Your task to perform on an android device: change the upload size in google photos Image 0: 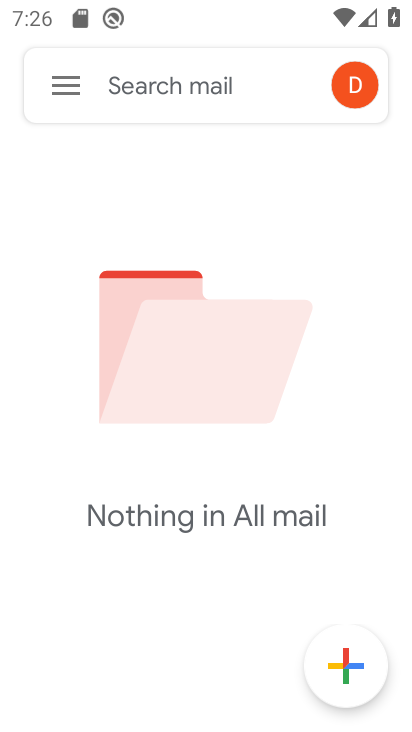
Step 0: press home button
Your task to perform on an android device: change the upload size in google photos Image 1: 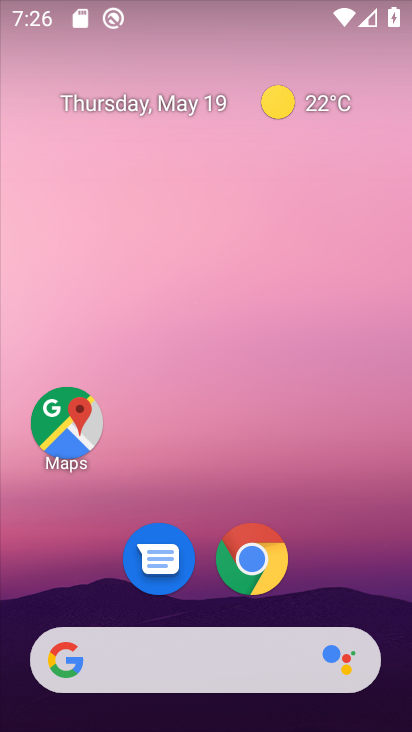
Step 1: drag from (190, 538) to (179, 6)
Your task to perform on an android device: change the upload size in google photos Image 2: 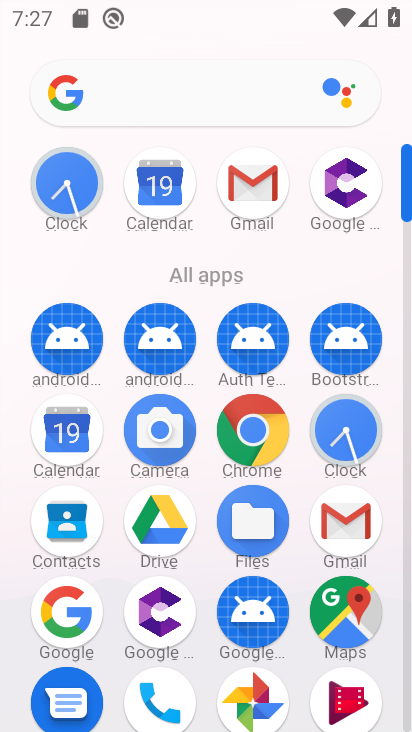
Step 2: drag from (200, 571) to (286, 70)
Your task to perform on an android device: change the upload size in google photos Image 3: 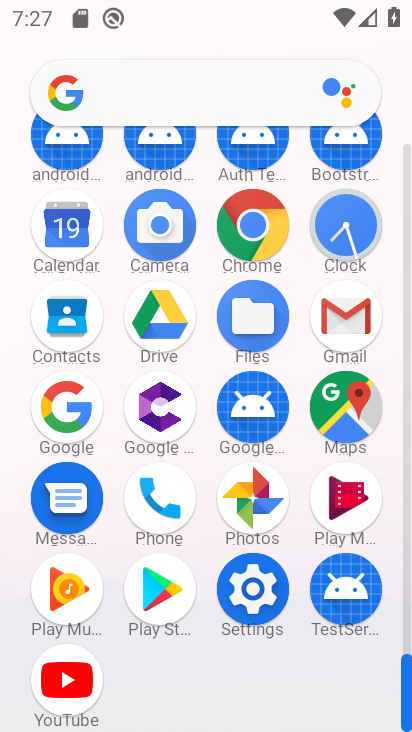
Step 3: click (258, 489)
Your task to perform on an android device: change the upload size in google photos Image 4: 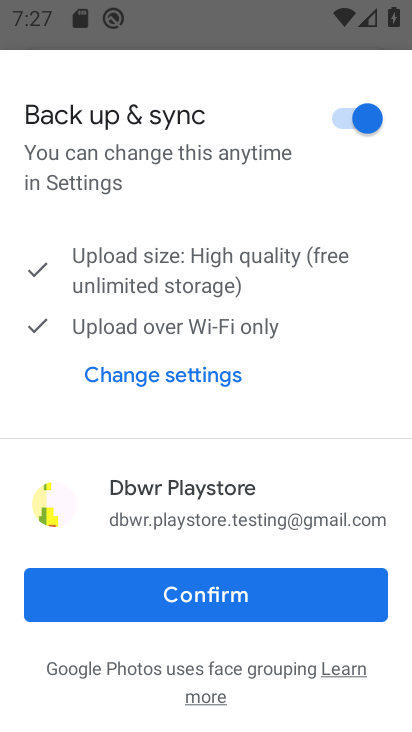
Step 4: click (103, 577)
Your task to perform on an android device: change the upload size in google photos Image 5: 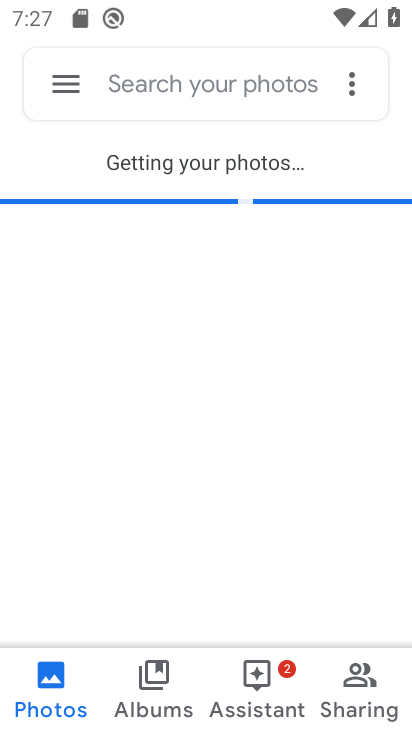
Step 5: click (46, 79)
Your task to perform on an android device: change the upload size in google photos Image 6: 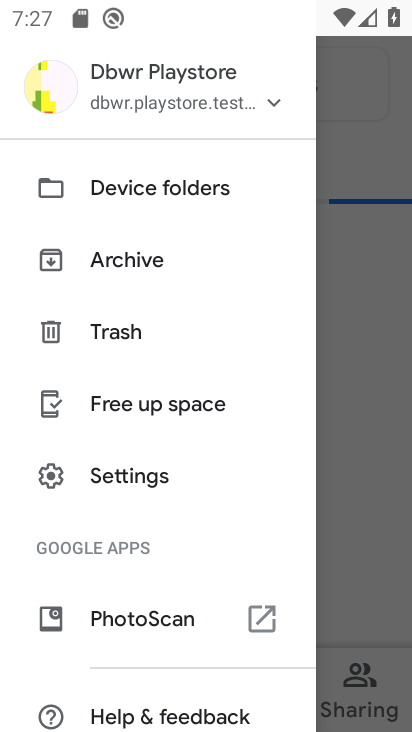
Step 6: click (102, 477)
Your task to perform on an android device: change the upload size in google photos Image 7: 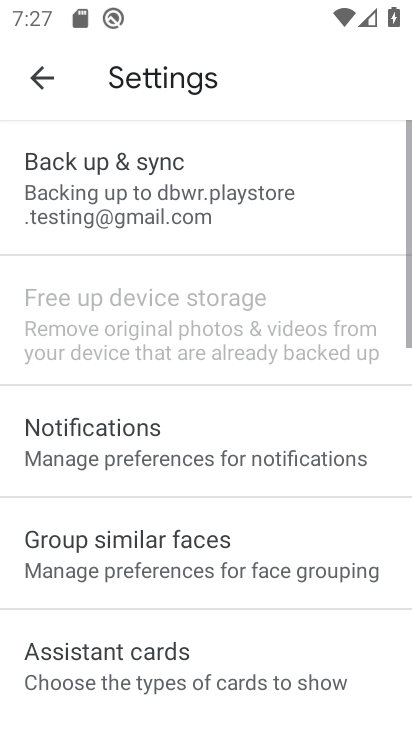
Step 7: click (146, 209)
Your task to perform on an android device: change the upload size in google photos Image 8: 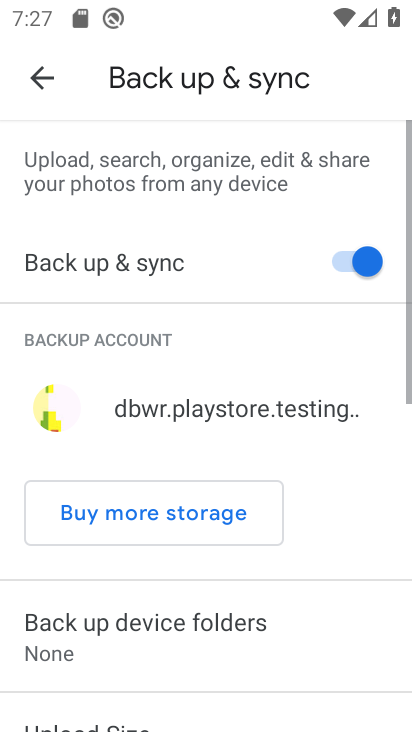
Step 8: drag from (211, 441) to (215, 200)
Your task to perform on an android device: change the upload size in google photos Image 9: 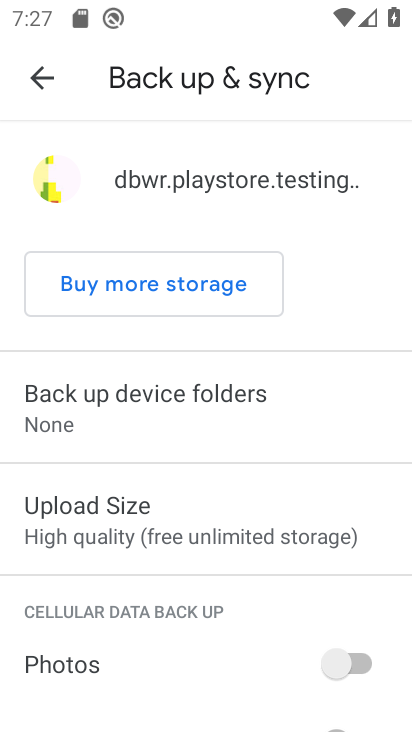
Step 9: click (216, 542)
Your task to perform on an android device: change the upload size in google photos Image 10: 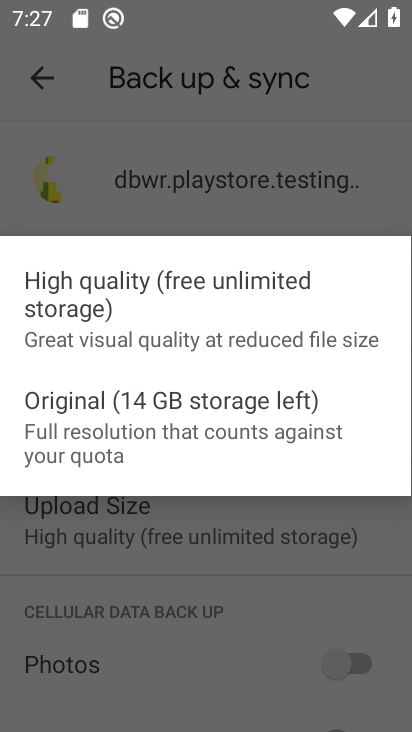
Step 10: click (211, 429)
Your task to perform on an android device: change the upload size in google photos Image 11: 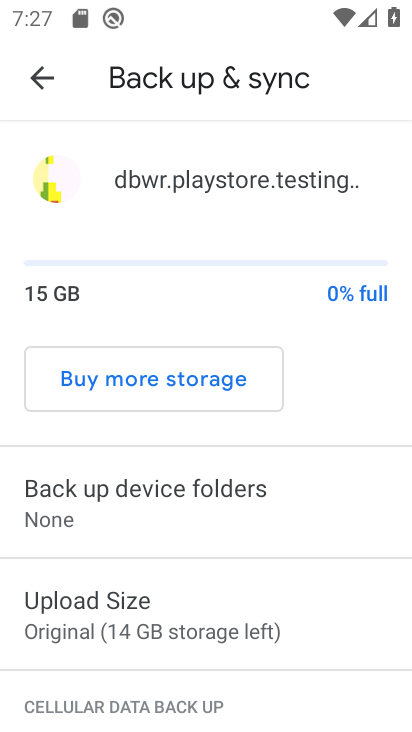
Step 11: task complete